Your task to perform on an android device: remove spam from my inbox in the gmail app Image 0: 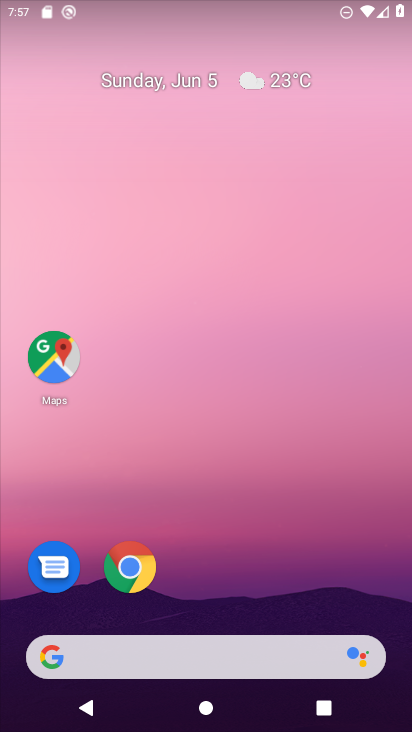
Step 0: drag from (391, 640) to (246, 25)
Your task to perform on an android device: remove spam from my inbox in the gmail app Image 1: 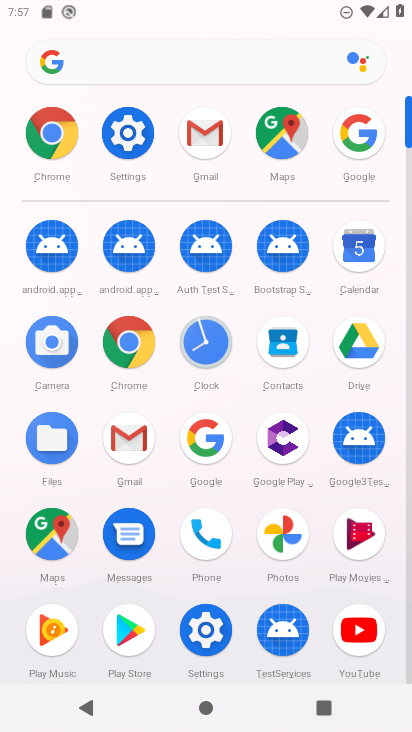
Step 1: click (133, 441)
Your task to perform on an android device: remove spam from my inbox in the gmail app Image 2: 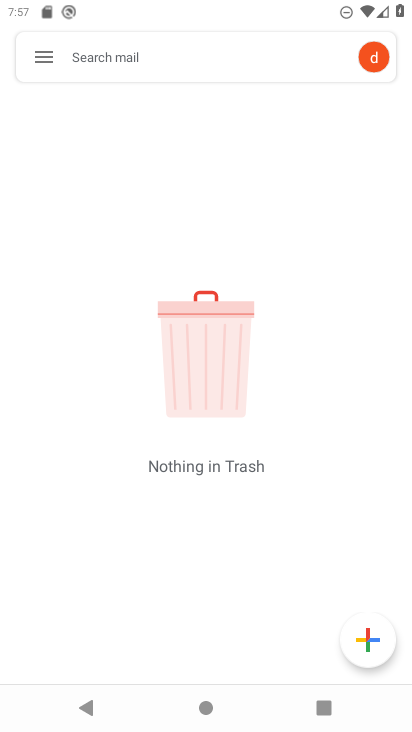
Step 2: click (24, 50)
Your task to perform on an android device: remove spam from my inbox in the gmail app Image 3: 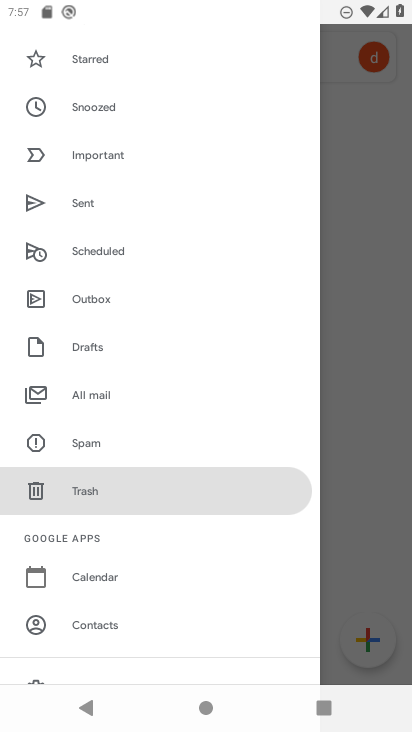
Step 3: drag from (168, 180) to (61, 728)
Your task to perform on an android device: remove spam from my inbox in the gmail app Image 4: 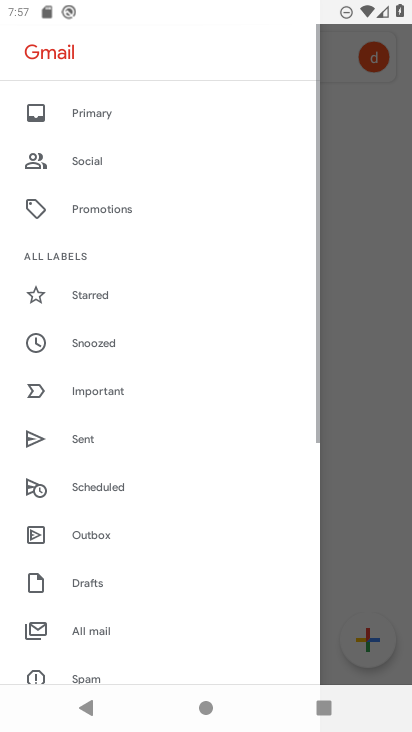
Step 4: click (158, 118)
Your task to perform on an android device: remove spam from my inbox in the gmail app Image 5: 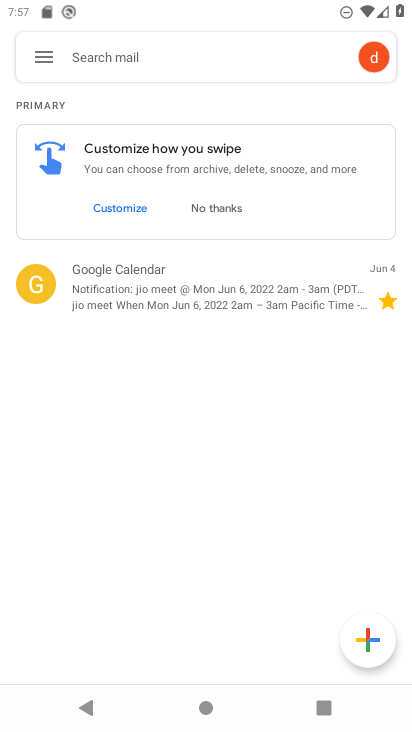
Step 5: task complete